Your task to perform on an android device: Open the calendar and show me this week's events? Image 0: 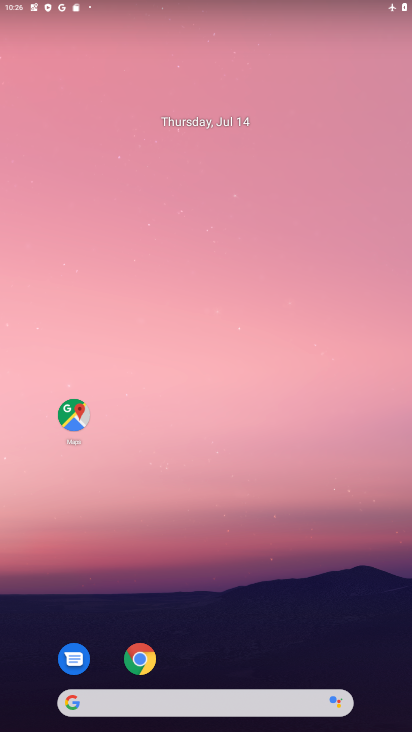
Step 0: drag from (288, 583) to (265, 115)
Your task to perform on an android device: Open the calendar and show me this week's events? Image 1: 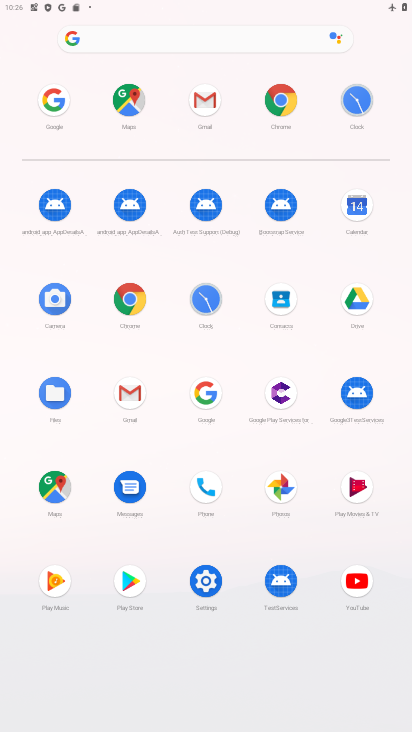
Step 1: click (355, 209)
Your task to perform on an android device: Open the calendar and show me this week's events? Image 2: 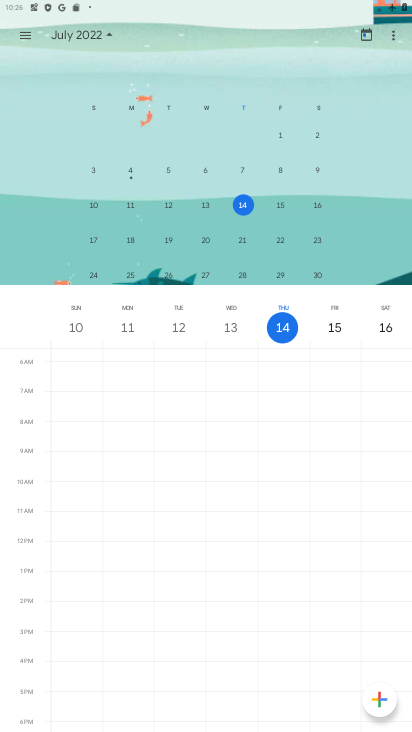
Step 2: click (234, 205)
Your task to perform on an android device: Open the calendar and show me this week's events? Image 3: 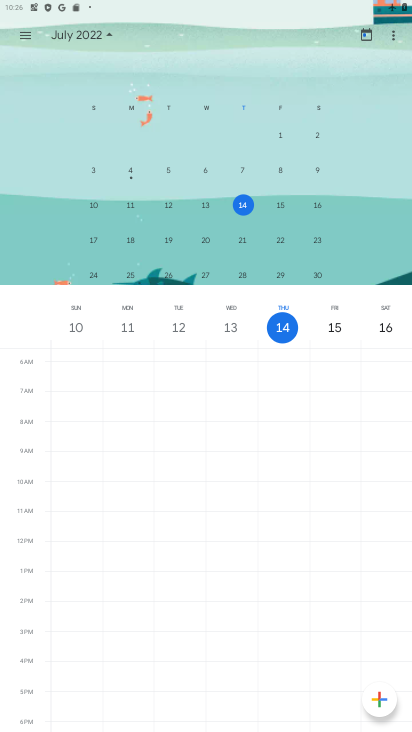
Step 3: task complete